Your task to perform on an android device: turn off data saver in the chrome app Image 0: 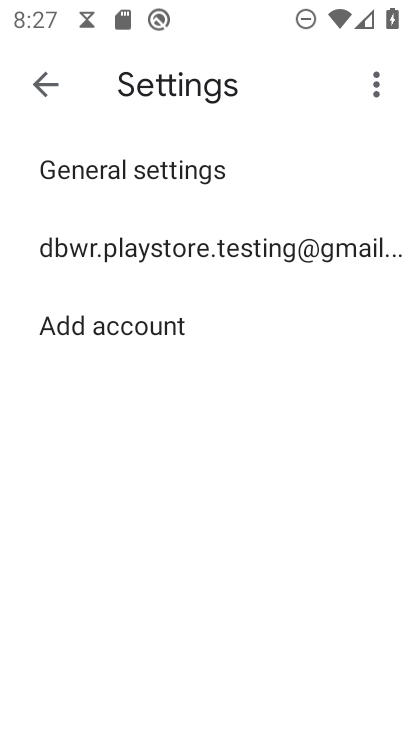
Step 0: press home button
Your task to perform on an android device: turn off data saver in the chrome app Image 1: 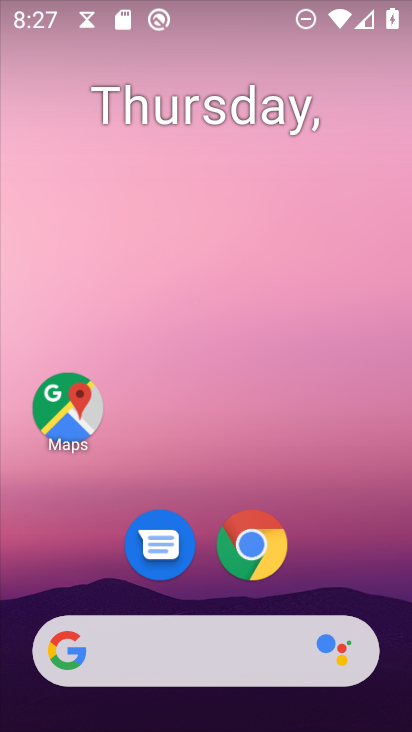
Step 1: click (250, 544)
Your task to perform on an android device: turn off data saver in the chrome app Image 2: 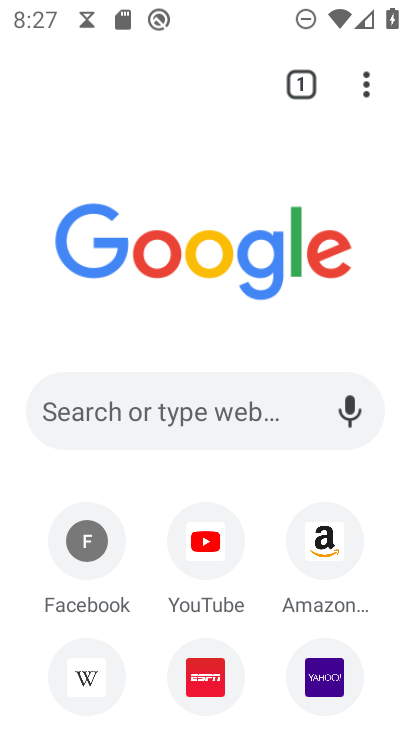
Step 2: click (365, 87)
Your task to perform on an android device: turn off data saver in the chrome app Image 3: 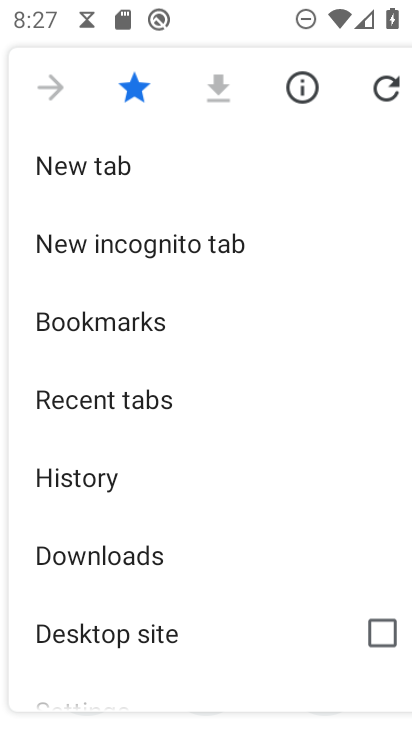
Step 3: drag from (132, 595) to (204, 501)
Your task to perform on an android device: turn off data saver in the chrome app Image 4: 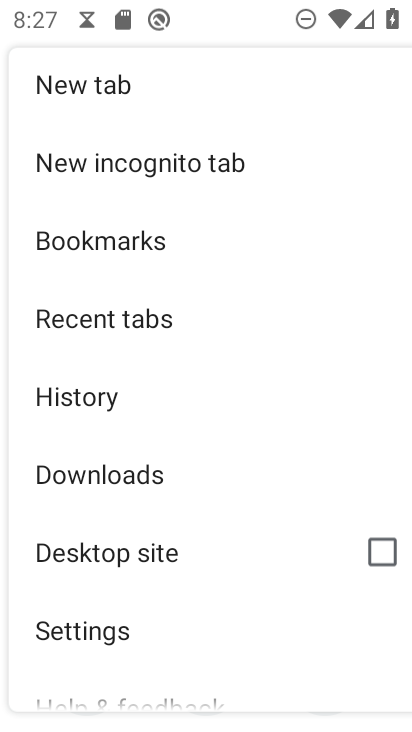
Step 4: click (95, 635)
Your task to perform on an android device: turn off data saver in the chrome app Image 5: 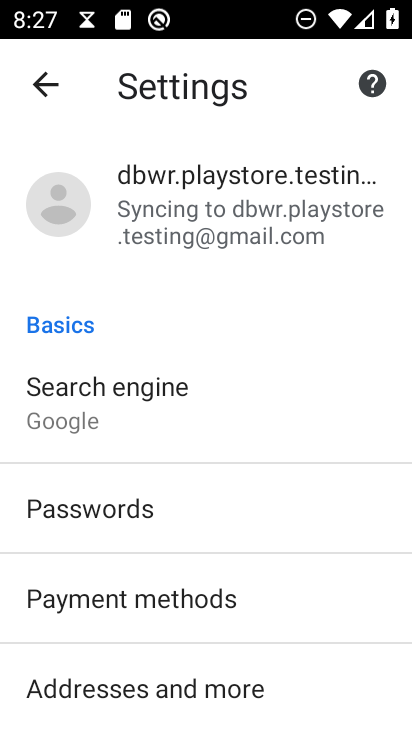
Step 5: drag from (170, 576) to (223, 493)
Your task to perform on an android device: turn off data saver in the chrome app Image 6: 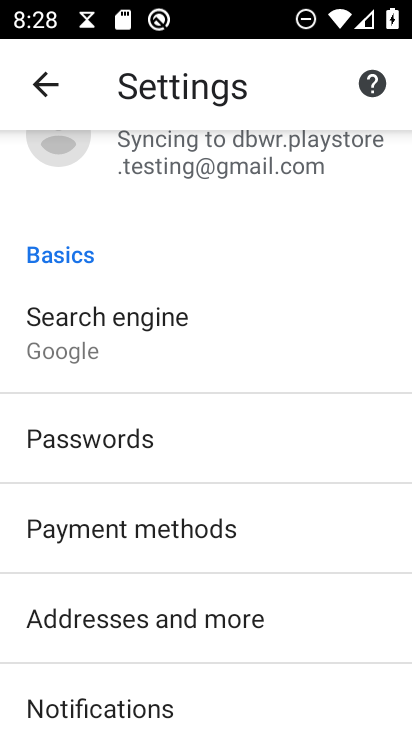
Step 6: drag from (202, 635) to (307, 504)
Your task to perform on an android device: turn off data saver in the chrome app Image 7: 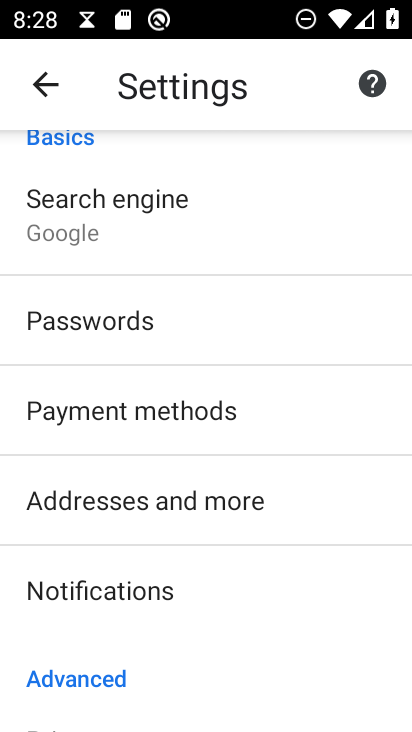
Step 7: drag from (257, 624) to (311, 487)
Your task to perform on an android device: turn off data saver in the chrome app Image 8: 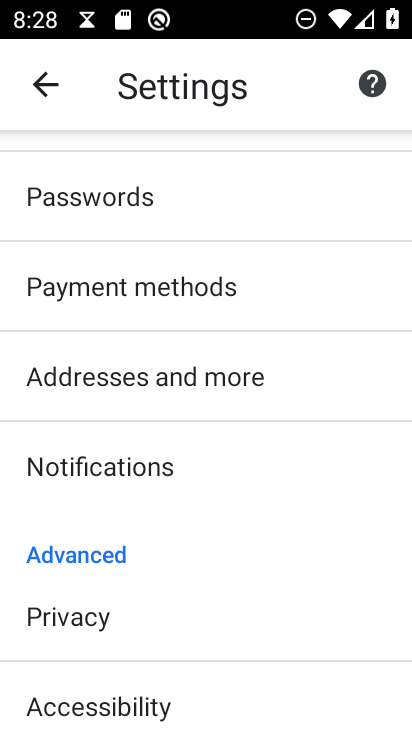
Step 8: drag from (187, 612) to (229, 519)
Your task to perform on an android device: turn off data saver in the chrome app Image 9: 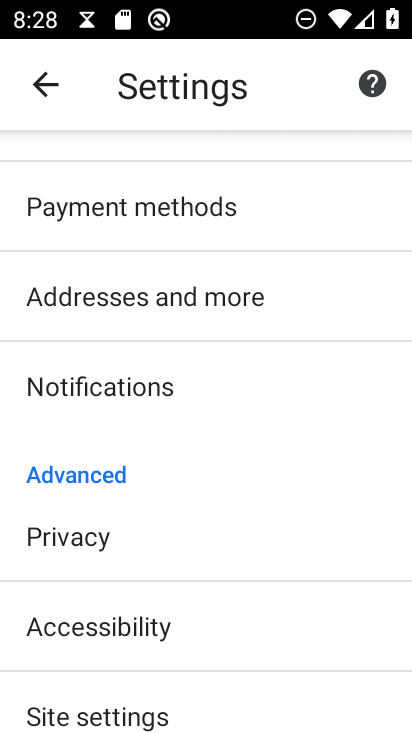
Step 9: drag from (212, 660) to (278, 551)
Your task to perform on an android device: turn off data saver in the chrome app Image 10: 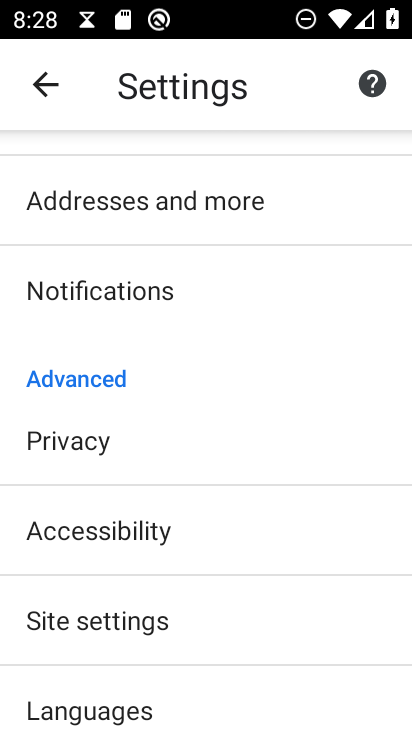
Step 10: drag from (211, 652) to (263, 490)
Your task to perform on an android device: turn off data saver in the chrome app Image 11: 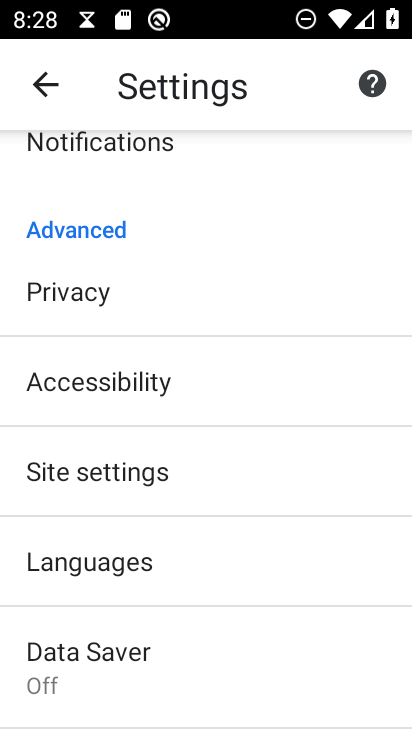
Step 11: click (131, 649)
Your task to perform on an android device: turn off data saver in the chrome app Image 12: 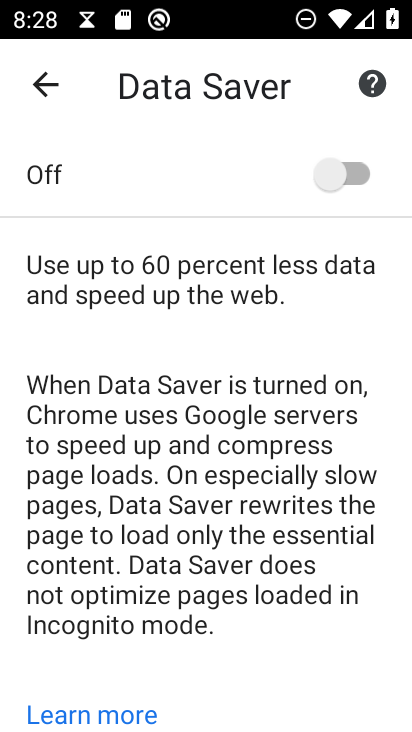
Step 12: task complete